Your task to perform on an android device: How do I get to the nearest Sprint Store? Image 0: 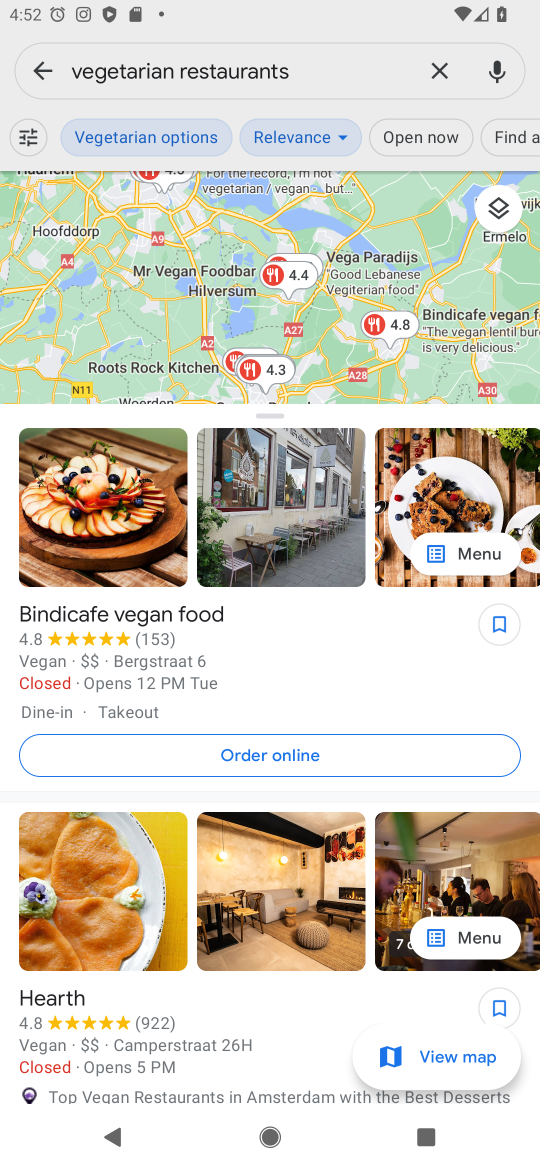
Step 0: press home button
Your task to perform on an android device: How do I get to the nearest Sprint Store? Image 1: 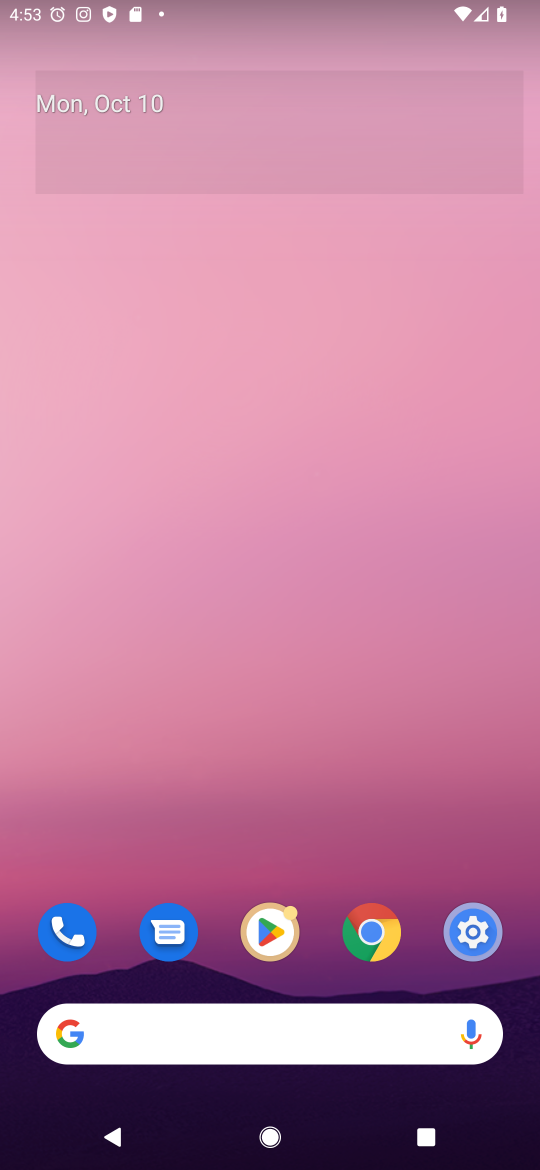
Step 1: click (258, 1035)
Your task to perform on an android device: How do I get to the nearest Sprint Store? Image 2: 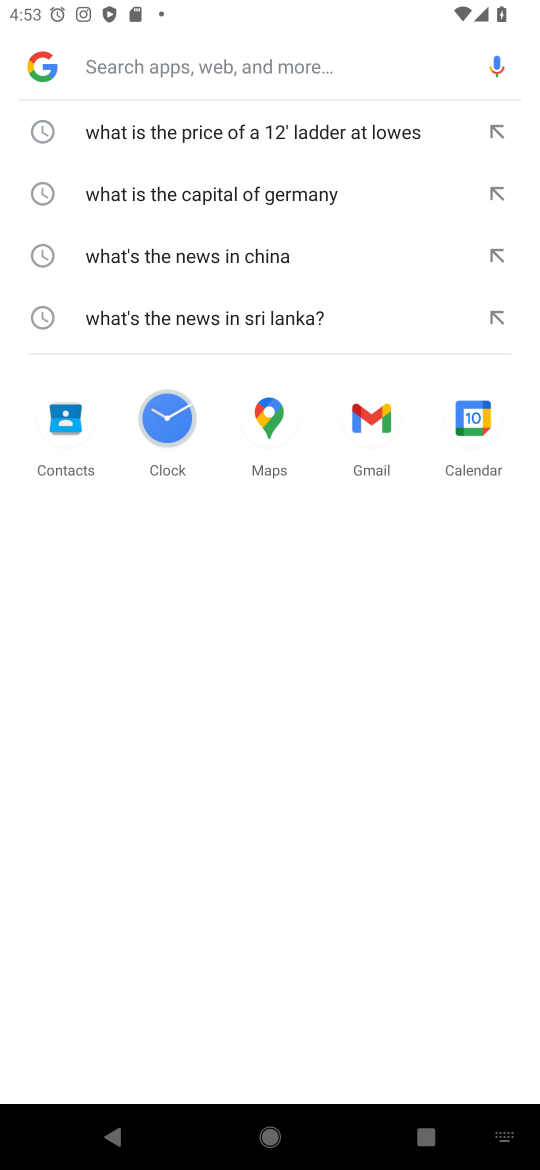
Step 2: type "How do I get to the nearest Sprint Store"
Your task to perform on an android device: How do I get to the nearest Sprint Store? Image 3: 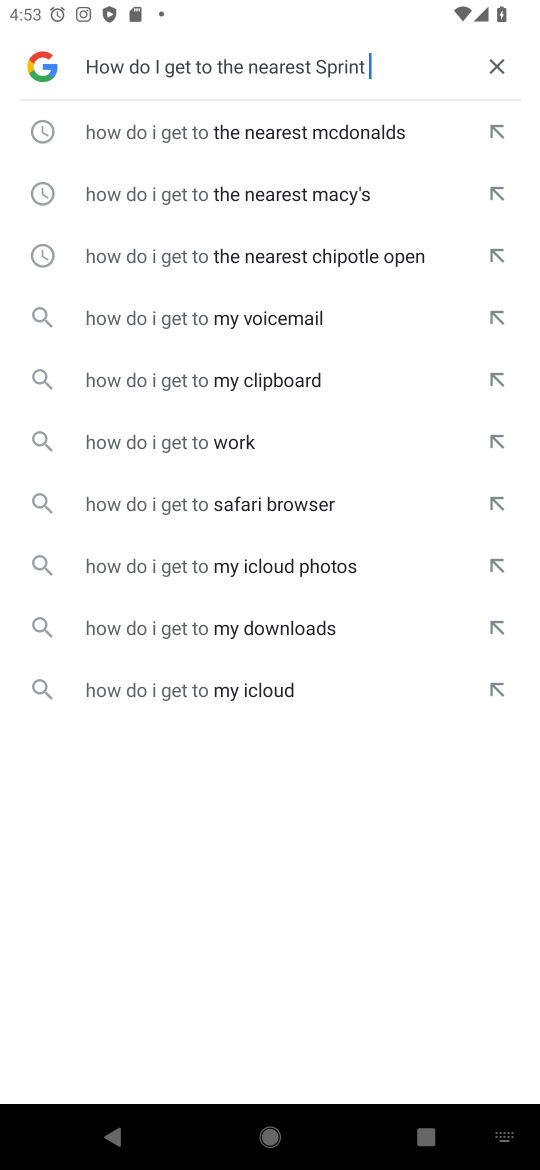
Step 3: press enter
Your task to perform on an android device: How do I get to the nearest Sprint Store? Image 4: 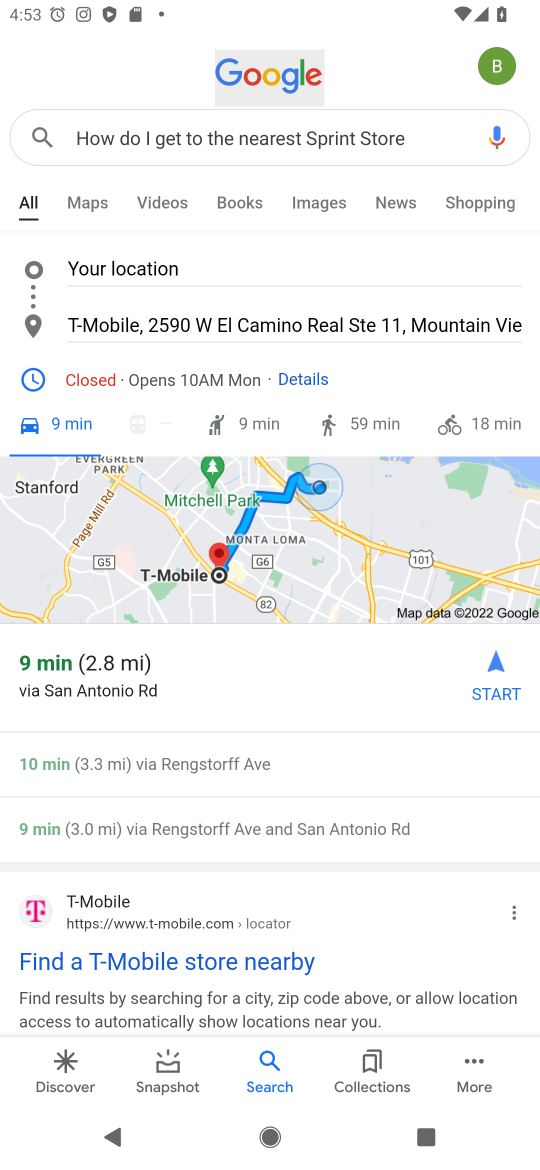
Step 4: task complete